Your task to perform on an android device: toggle improve location accuracy Image 0: 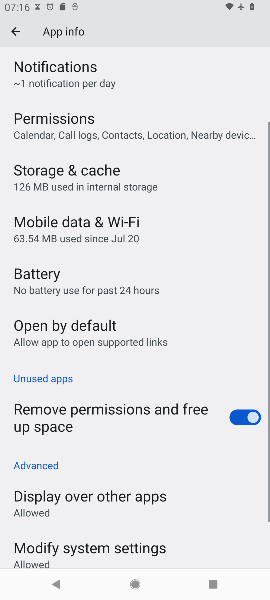
Step 0: press home button
Your task to perform on an android device: toggle improve location accuracy Image 1: 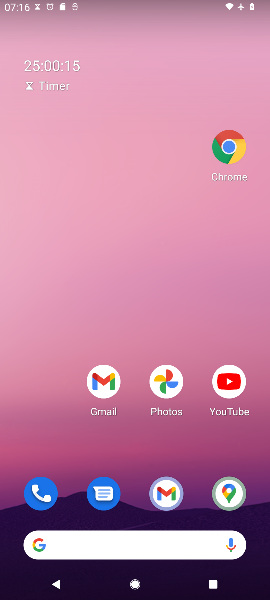
Step 1: drag from (54, 452) to (69, 93)
Your task to perform on an android device: toggle improve location accuracy Image 2: 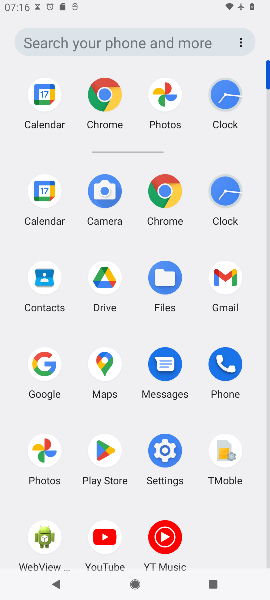
Step 2: click (163, 452)
Your task to perform on an android device: toggle improve location accuracy Image 3: 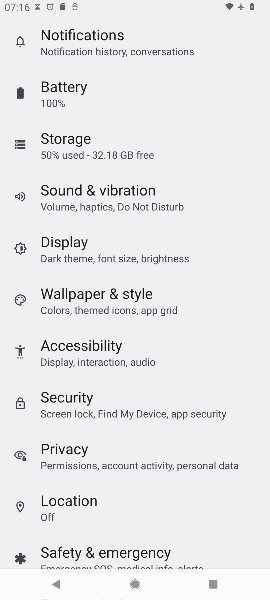
Step 3: click (75, 500)
Your task to perform on an android device: toggle improve location accuracy Image 4: 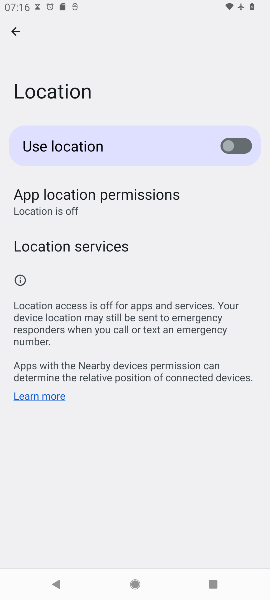
Step 4: click (64, 245)
Your task to perform on an android device: toggle improve location accuracy Image 5: 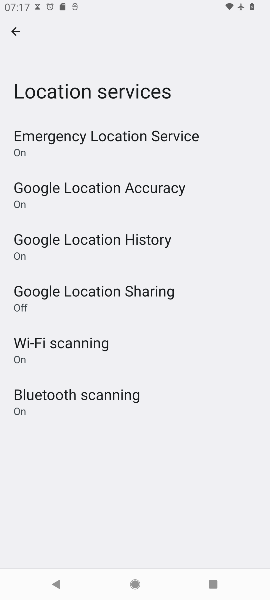
Step 5: click (139, 190)
Your task to perform on an android device: toggle improve location accuracy Image 6: 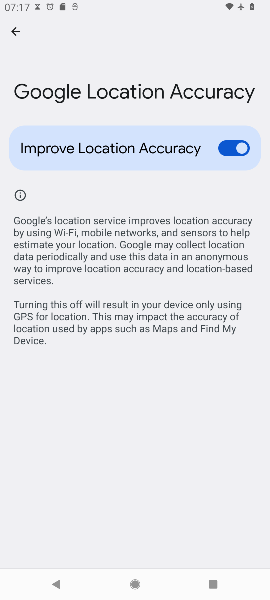
Step 6: click (238, 154)
Your task to perform on an android device: toggle improve location accuracy Image 7: 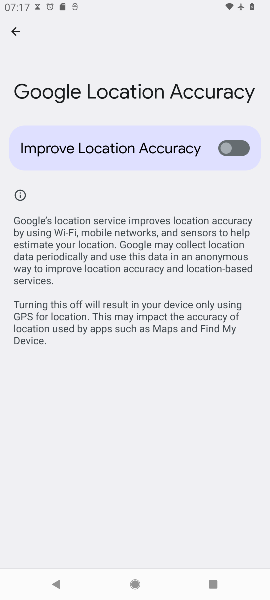
Step 7: task complete